Your task to perform on an android device: Open maps Image 0: 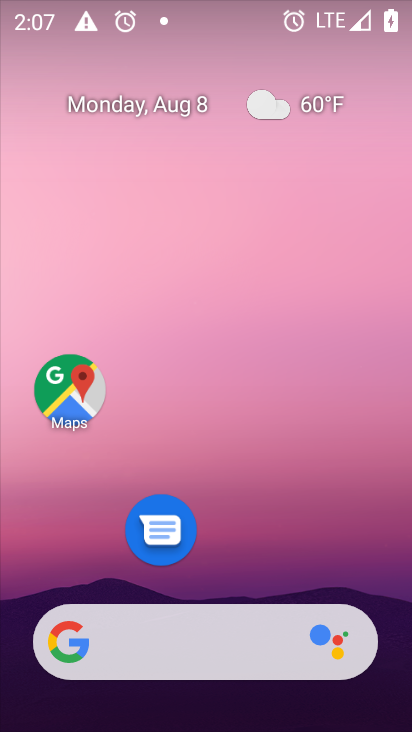
Step 0: drag from (220, 565) to (216, 8)
Your task to perform on an android device: Open maps Image 1: 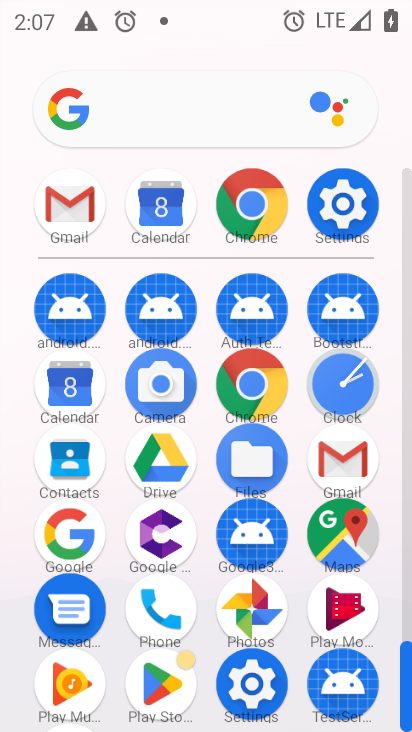
Step 1: click (335, 532)
Your task to perform on an android device: Open maps Image 2: 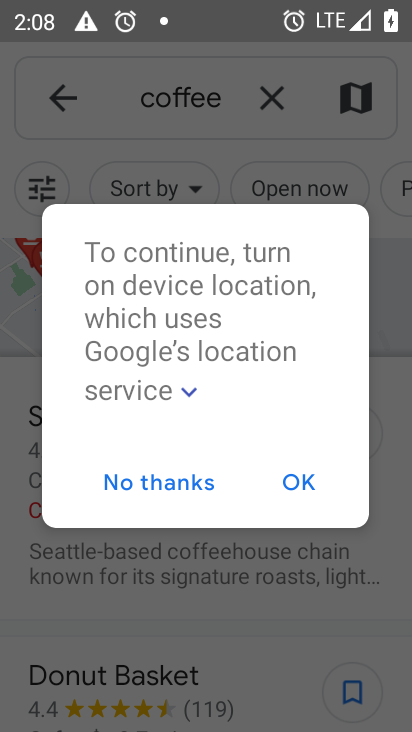
Step 2: click (300, 473)
Your task to perform on an android device: Open maps Image 3: 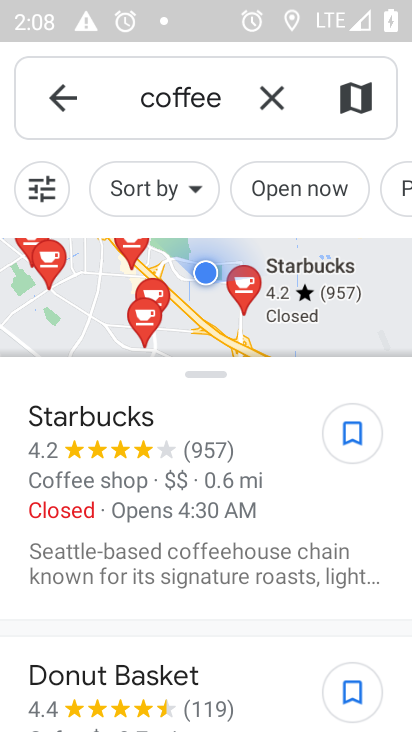
Step 3: task complete